Your task to perform on an android device: open app "Paramount+ | Peak Streaming" Image 0: 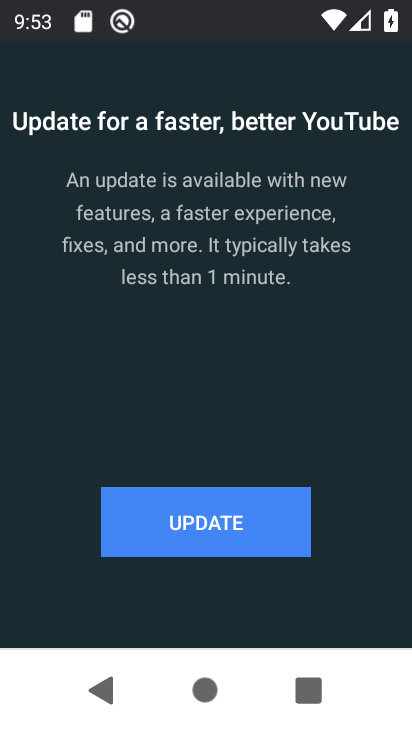
Step 0: press home button
Your task to perform on an android device: open app "Paramount+ | Peak Streaming" Image 1: 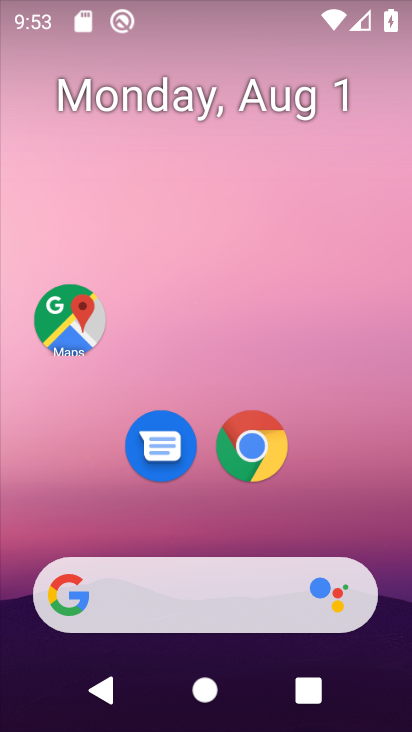
Step 1: drag from (206, 518) to (265, 71)
Your task to perform on an android device: open app "Paramount+ | Peak Streaming" Image 2: 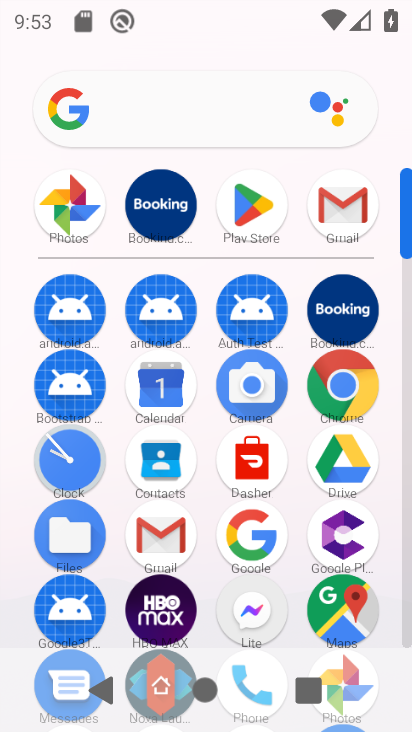
Step 2: click (254, 179)
Your task to perform on an android device: open app "Paramount+ | Peak Streaming" Image 3: 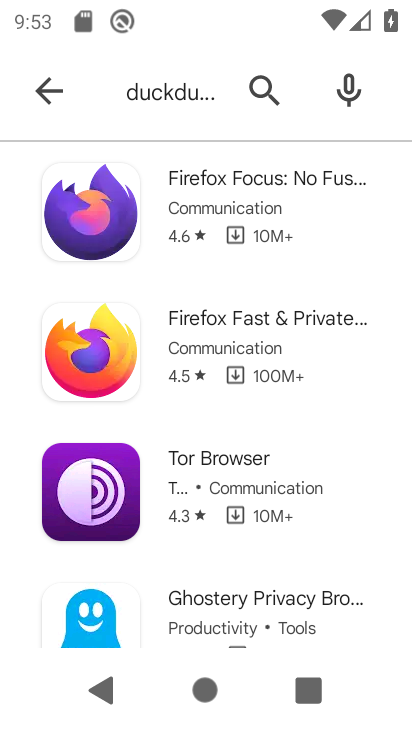
Step 3: click (249, 90)
Your task to perform on an android device: open app "Paramount+ | Peak Streaming" Image 4: 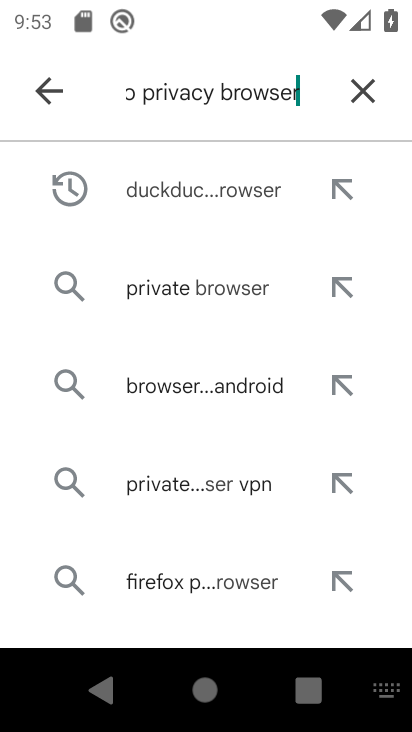
Step 4: click (350, 84)
Your task to perform on an android device: open app "Paramount+ | Peak Streaming" Image 5: 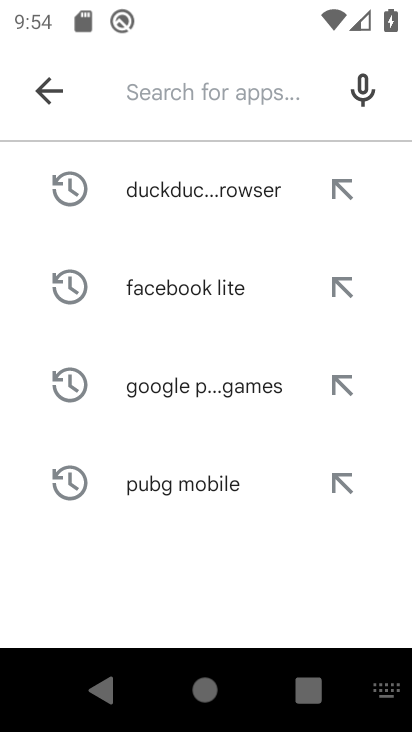
Step 5: type "Paramount+ | Peak Streaming"
Your task to perform on an android device: open app "Paramount+ | Peak Streaming" Image 6: 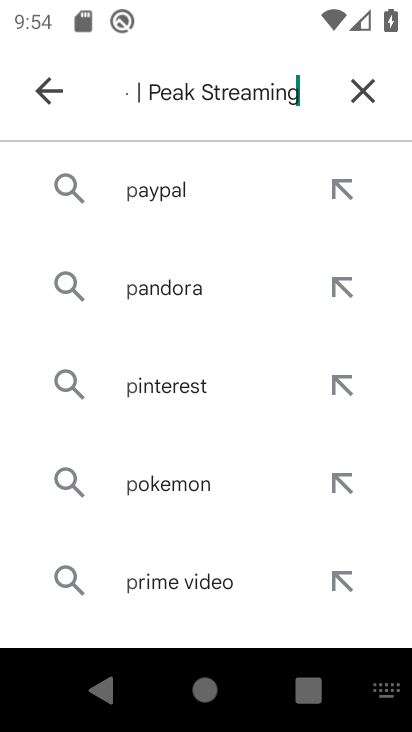
Step 6: type ""
Your task to perform on an android device: open app "Paramount+ | Peak Streaming" Image 7: 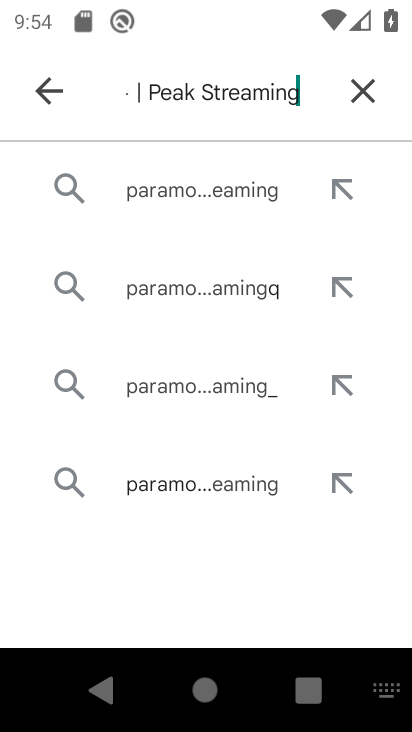
Step 7: click (210, 187)
Your task to perform on an android device: open app "Paramount+ | Peak Streaming" Image 8: 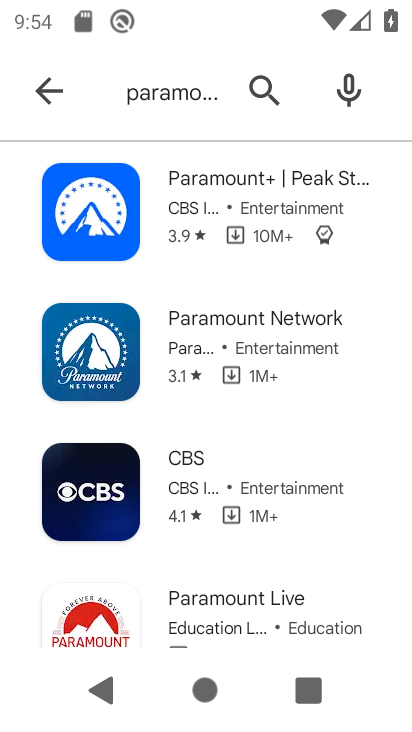
Step 8: click (203, 205)
Your task to perform on an android device: open app "Paramount+ | Peak Streaming" Image 9: 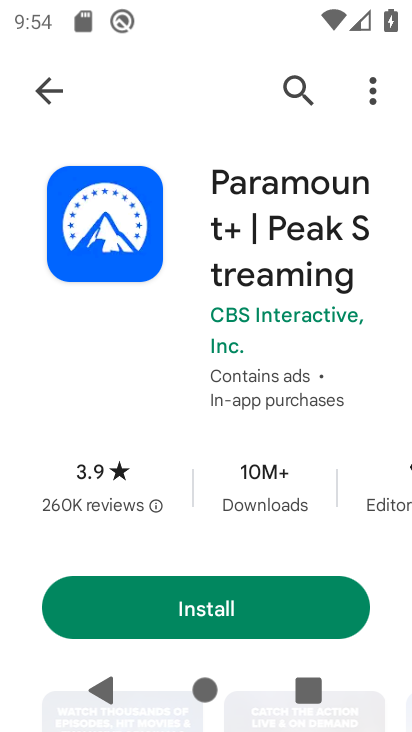
Step 9: task complete